Your task to perform on an android device: Open Wikipedia Image 0: 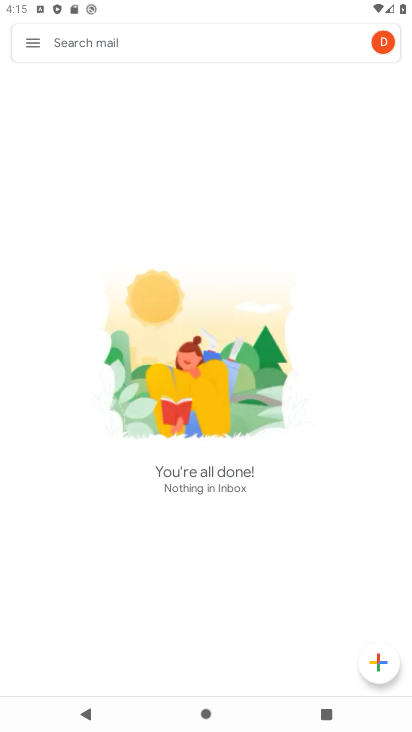
Step 0: press home button
Your task to perform on an android device: Open Wikipedia Image 1: 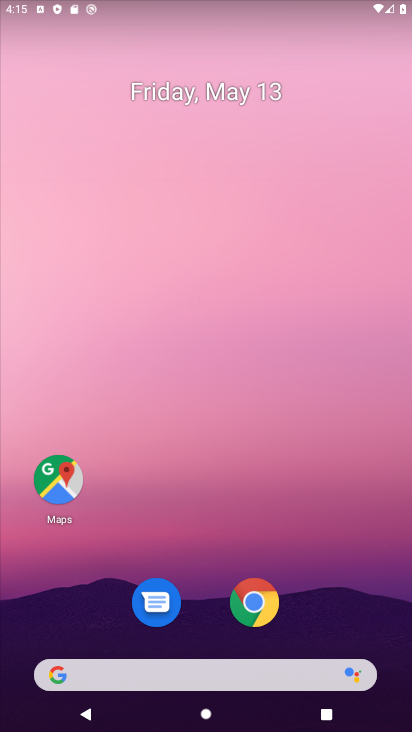
Step 1: click (250, 608)
Your task to perform on an android device: Open Wikipedia Image 2: 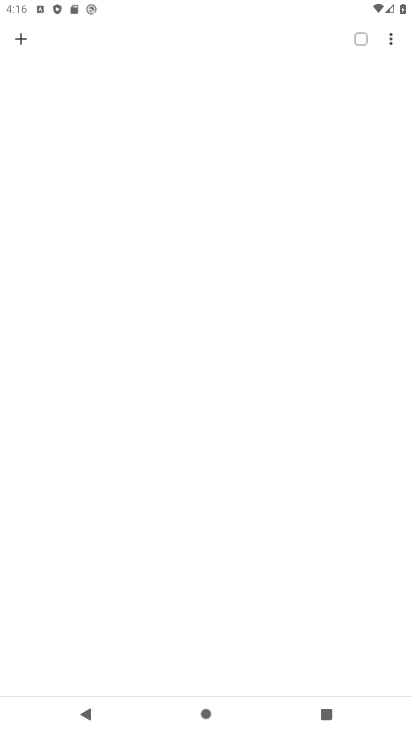
Step 2: click (21, 40)
Your task to perform on an android device: Open Wikipedia Image 3: 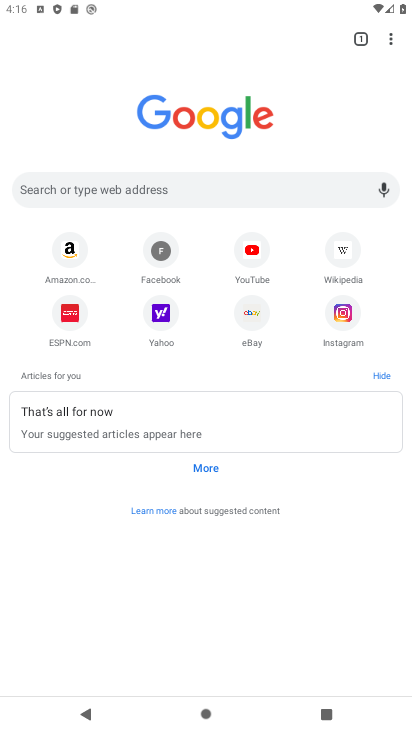
Step 3: click (338, 248)
Your task to perform on an android device: Open Wikipedia Image 4: 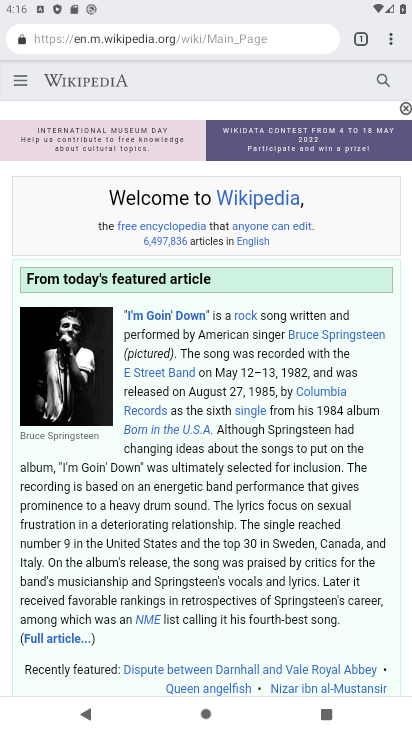
Step 4: task complete